Your task to perform on an android device: Search for Italian restaurants on Maps Image 0: 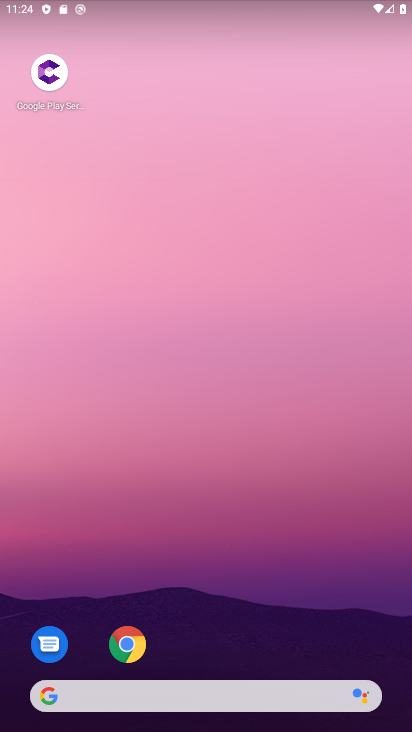
Step 0: drag from (301, 471) to (255, 140)
Your task to perform on an android device: Search for Italian restaurants on Maps Image 1: 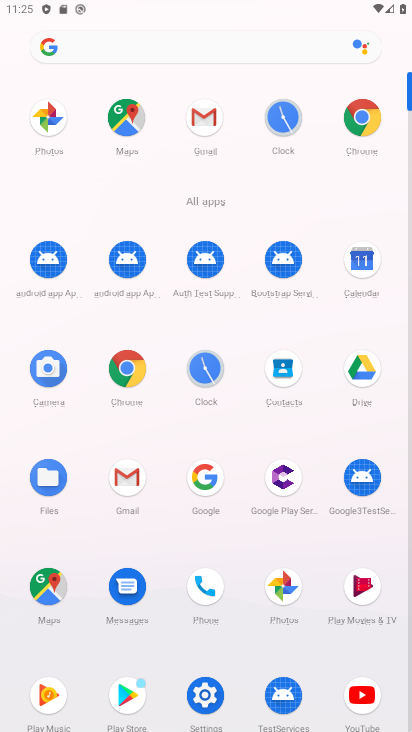
Step 1: click (115, 111)
Your task to perform on an android device: Search for Italian restaurants on Maps Image 2: 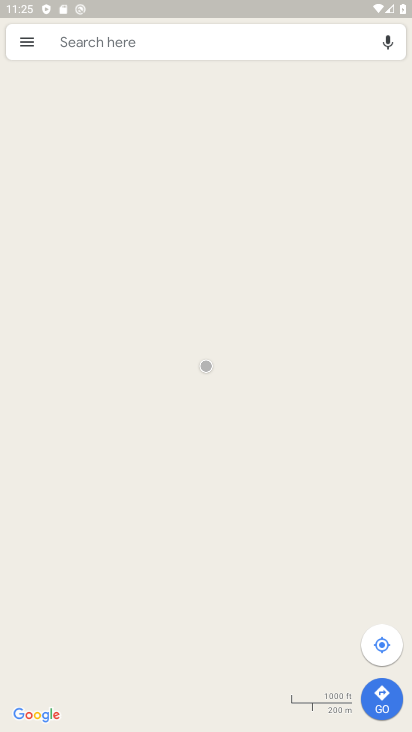
Step 2: click (231, 48)
Your task to perform on an android device: Search for Italian restaurants on Maps Image 3: 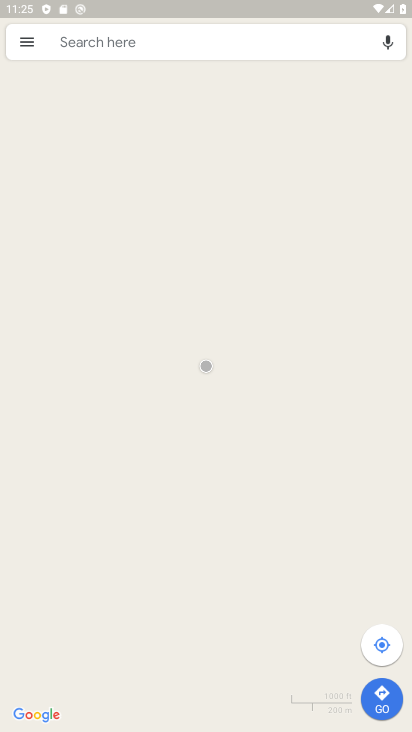
Step 3: click (231, 48)
Your task to perform on an android device: Search for Italian restaurants on Maps Image 4: 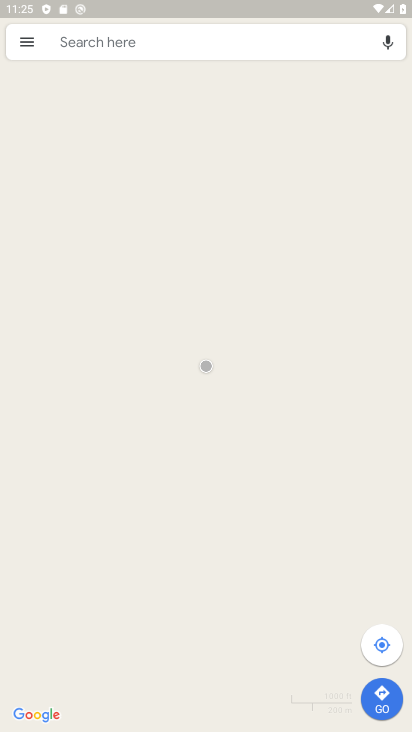
Step 4: click (231, 48)
Your task to perform on an android device: Search for Italian restaurants on Maps Image 5: 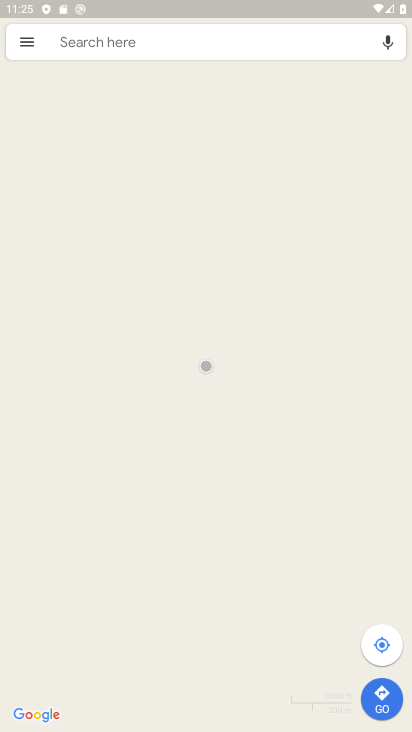
Step 5: click (231, 48)
Your task to perform on an android device: Search for Italian restaurants on Maps Image 6: 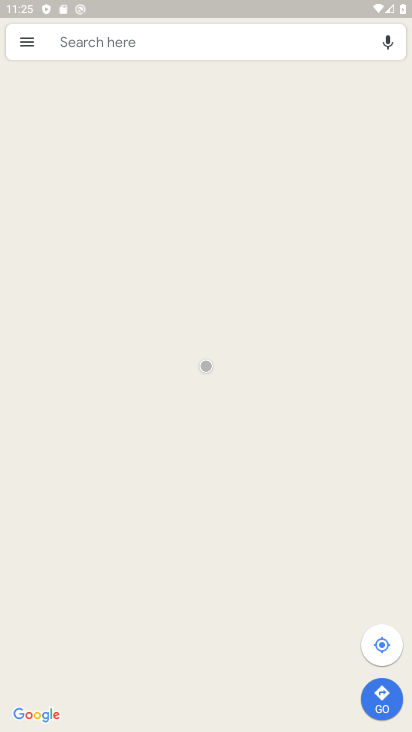
Step 6: click (231, 48)
Your task to perform on an android device: Search for Italian restaurants on Maps Image 7: 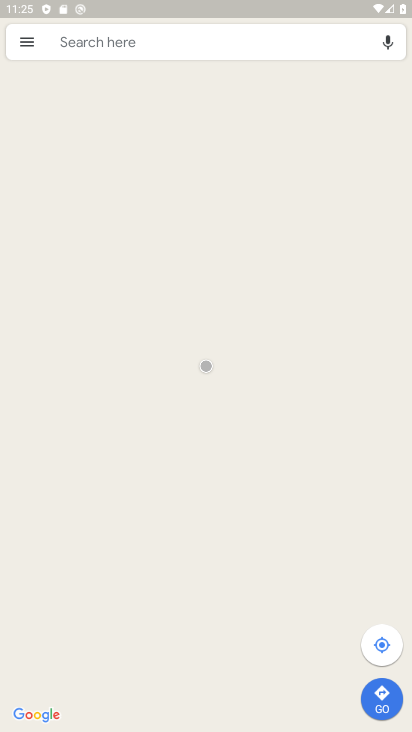
Step 7: click (231, 48)
Your task to perform on an android device: Search for Italian restaurants on Maps Image 8: 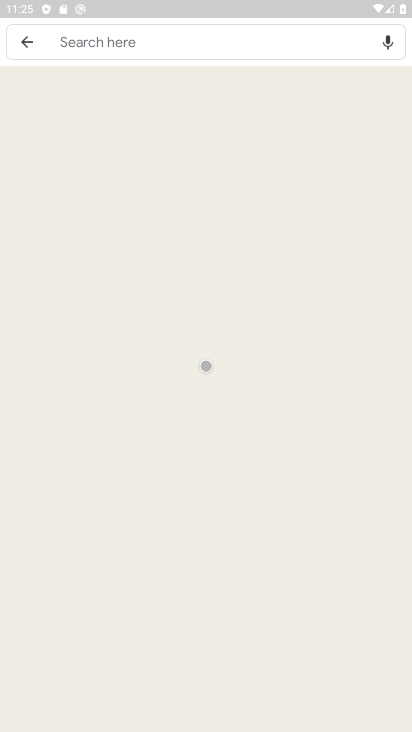
Step 8: click (231, 48)
Your task to perform on an android device: Search for Italian restaurants on Maps Image 9: 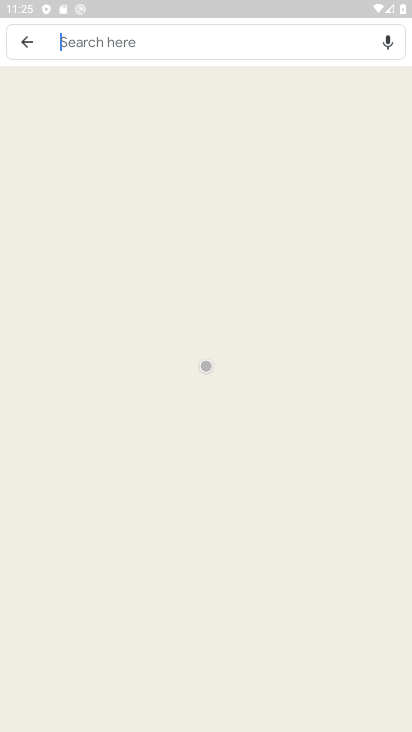
Step 9: click (231, 48)
Your task to perform on an android device: Search for Italian restaurants on Maps Image 10: 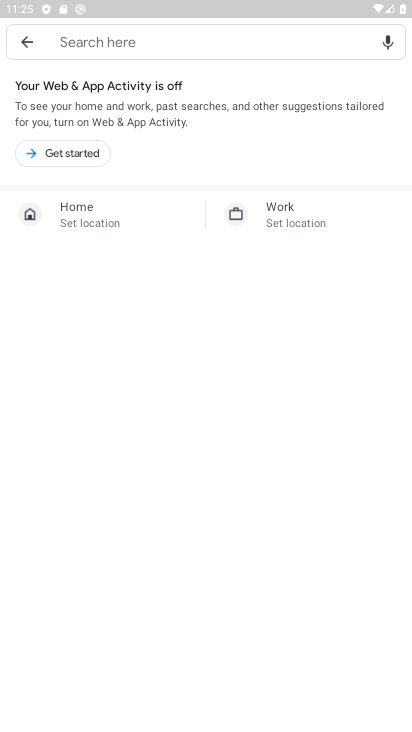
Step 10: click (227, 40)
Your task to perform on an android device: Search for Italian restaurants on Maps Image 11: 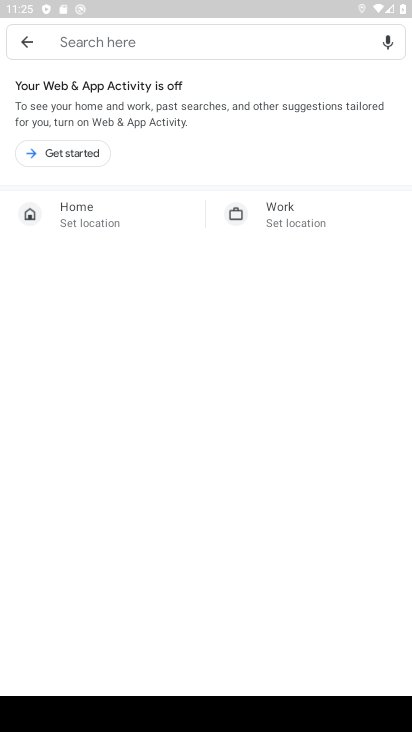
Step 11: click (233, 36)
Your task to perform on an android device: Search for Italian restaurants on Maps Image 12: 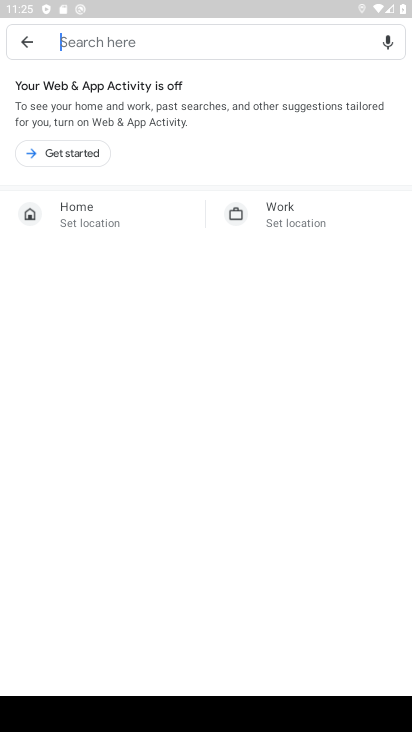
Step 12: click (233, 36)
Your task to perform on an android device: Search for Italian restaurants on Maps Image 13: 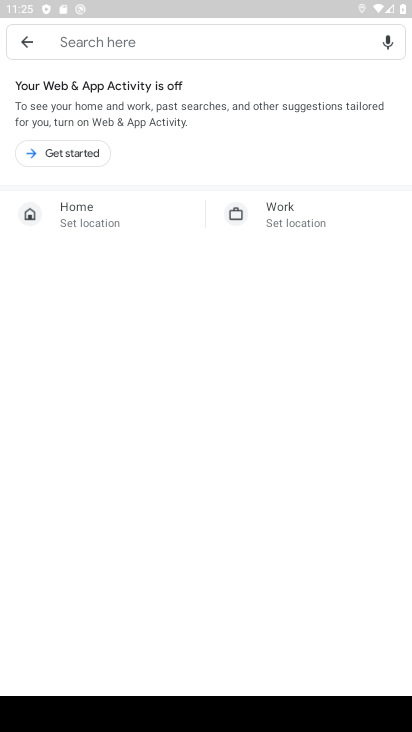
Step 13: click (231, 40)
Your task to perform on an android device: Search for Italian restaurants on Maps Image 14: 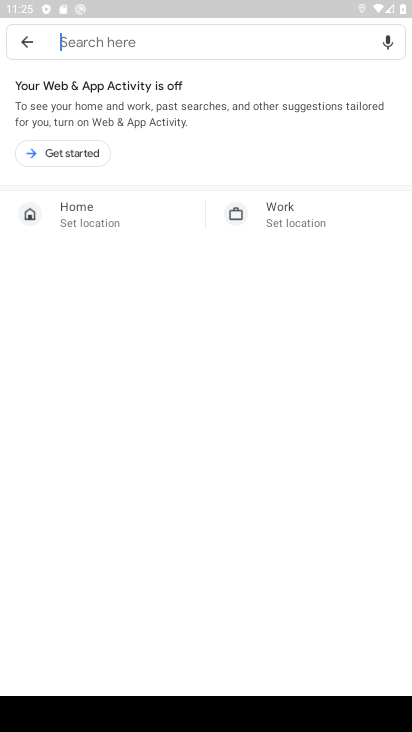
Step 14: click (231, 40)
Your task to perform on an android device: Search for Italian restaurants on Maps Image 15: 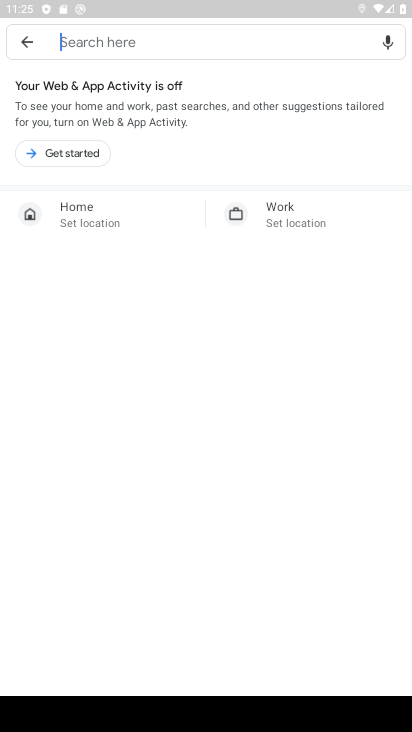
Step 15: click (231, 40)
Your task to perform on an android device: Search for Italian restaurants on Maps Image 16: 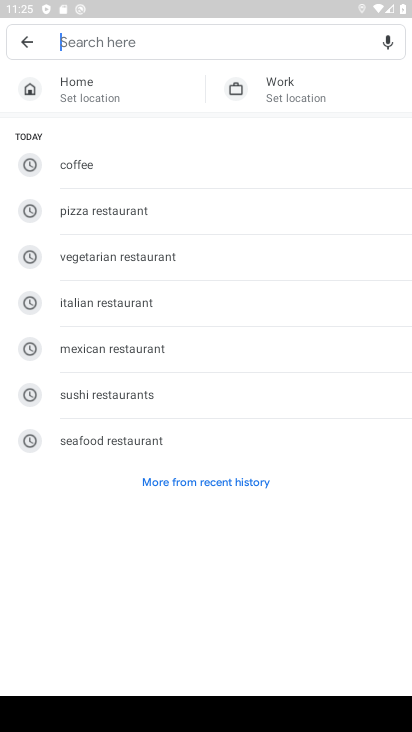
Step 16: type " Italian restaurants"
Your task to perform on an android device: Search for Italian restaurants on Maps Image 17: 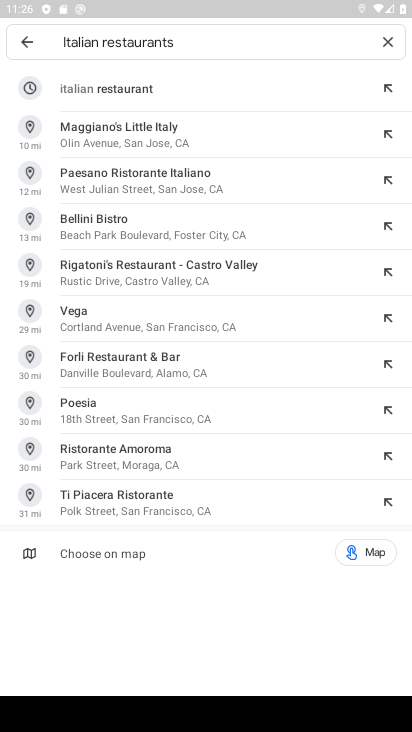
Step 17: click (294, 92)
Your task to perform on an android device: Search for Italian restaurants on Maps Image 18: 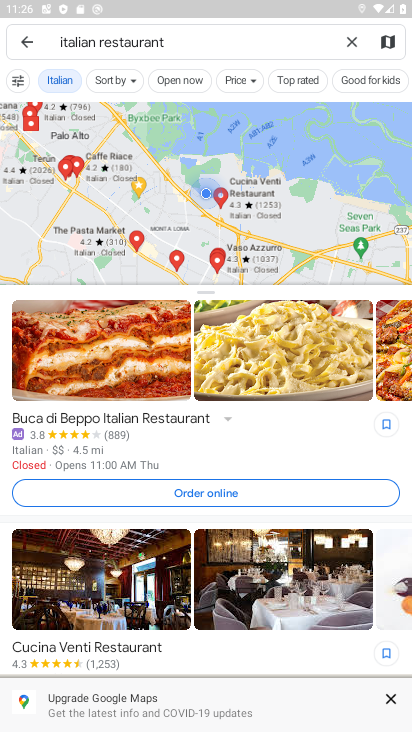
Step 18: task complete